Your task to perform on an android device: Go to accessibility settings Image 0: 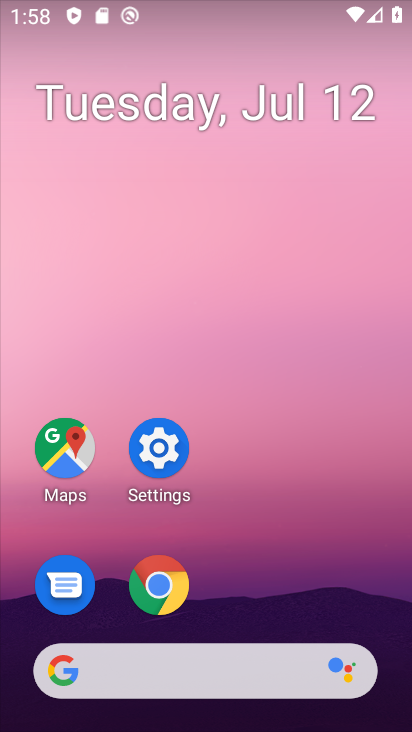
Step 0: click (162, 473)
Your task to perform on an android device: Go to accessibility settings Image 1: 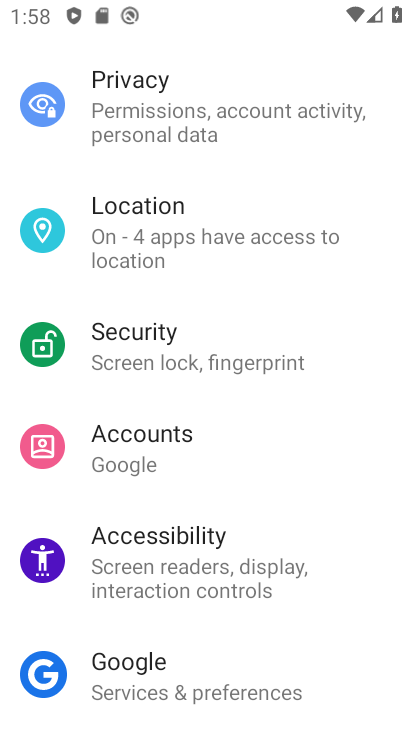
Step 1: click (164, 563)
Your task to perform on an android device: Go to accessibility settings Image 2: 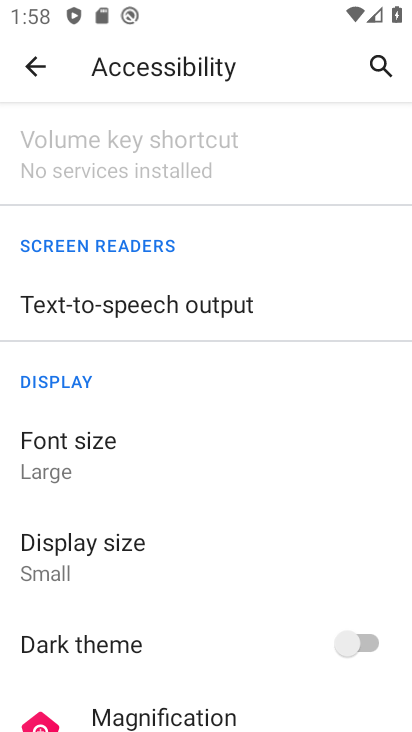
Step 2: task complete